Your task to perform on an android device: turn on translation in the chrome app Image 0: 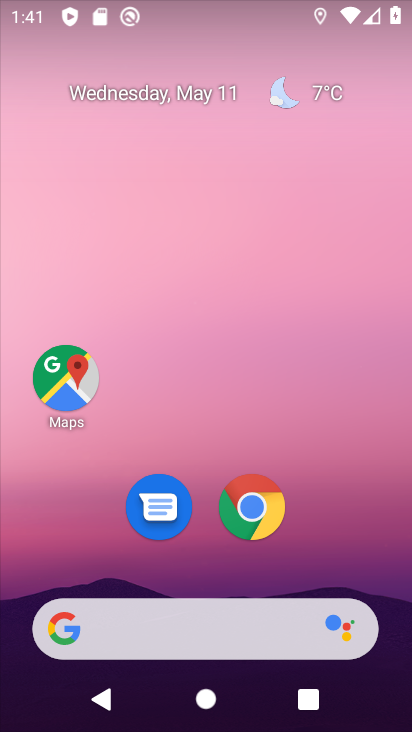
Step 0: drag from (355, 519) to (205, 26)
Your task to perform on an android device: turn on translation in the chrome app Image 1: 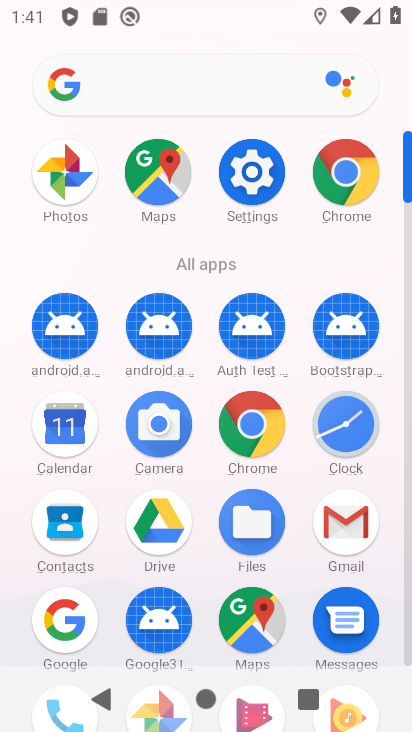
Step 1: drag from (25, 534) to (14, 194)
Your task to perform on an android device: turn on translation in the chrome app Image 2: 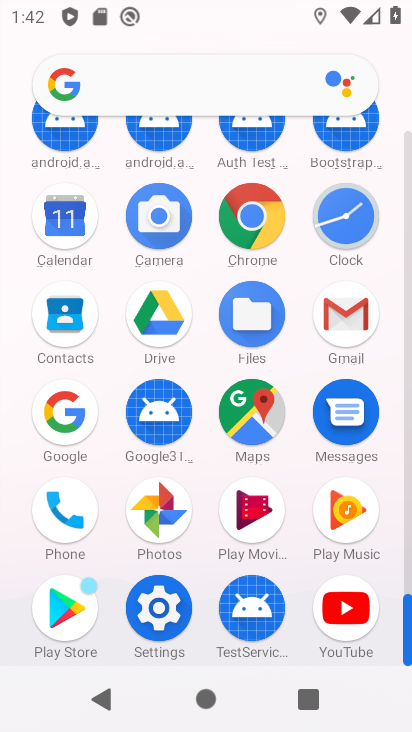
Step 2: click (247, 217)
Your task to perform on an android device: turn on translation in the chrome app Image 3: 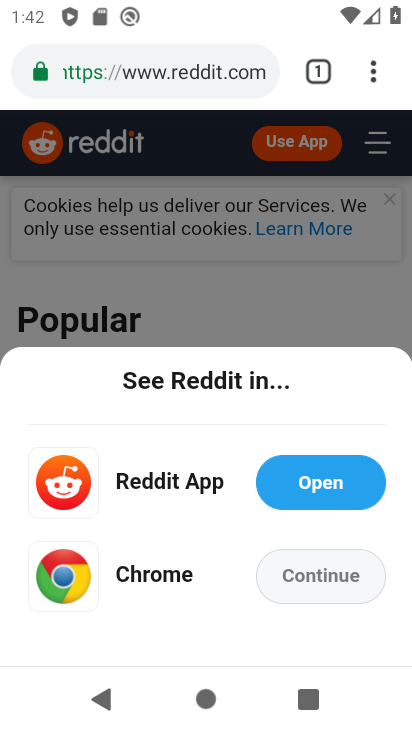
Step 3: drag from (370, 67) to (127, 506)
Your task to perform on an android device: turn on translation in the chrome app Image 4: 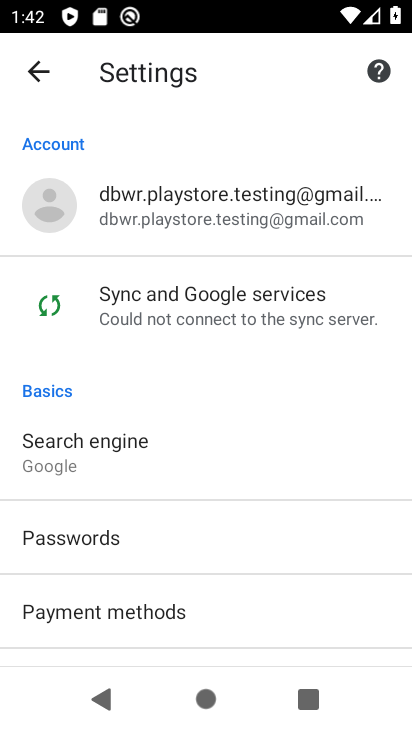
Step 4: drag from (182, 553) to (222, 225)
Your task to perform on an android device: turn on translation in the chrome app Image 5: 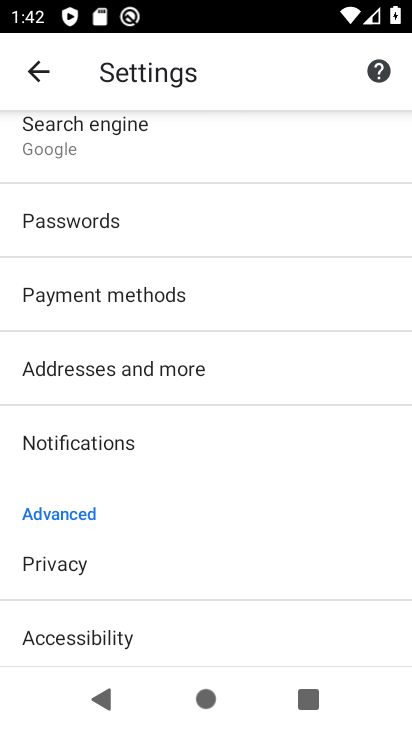
Step 5: drag from (174, 607) to (243, 163)
Your task to perform on an android device: turn on translation in the chrome app Image 6: 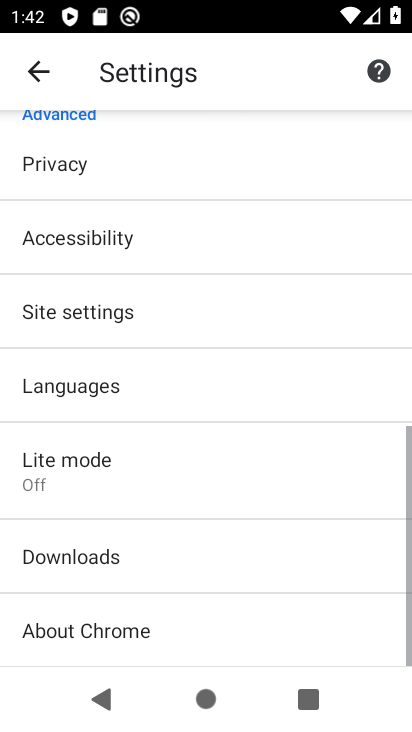
Step 6: click (103, 384)
Your task to perform on an android device: turn on translation in the chrome app Image 7: 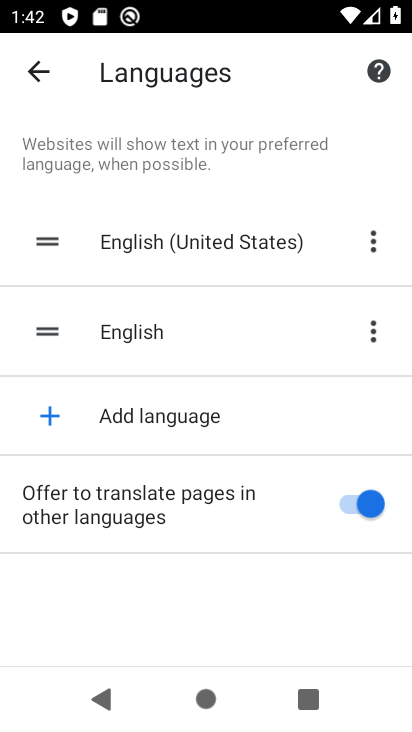
Step 7: task complete